Your task to perform on an android device: install app "Venmo" Image 0: 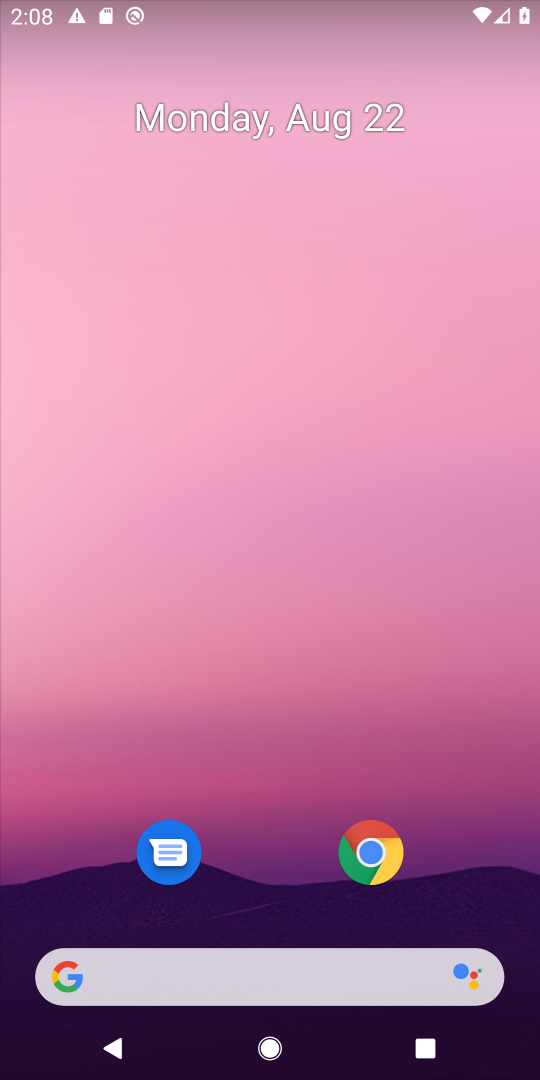
Step 0: drag from (274, 414) to (271, 114)
Your task to perform on an android device: install app "Venmo" Image 1: 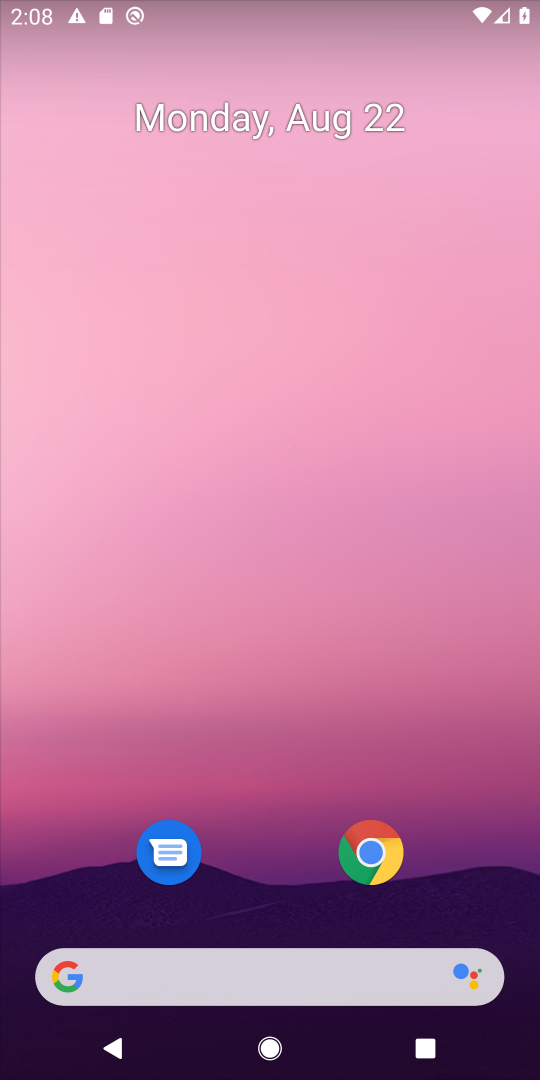
Step 1: drag from (280, 918) to (310, 63)
Your task to perform on an android device: install app "Venmo" Image 2: 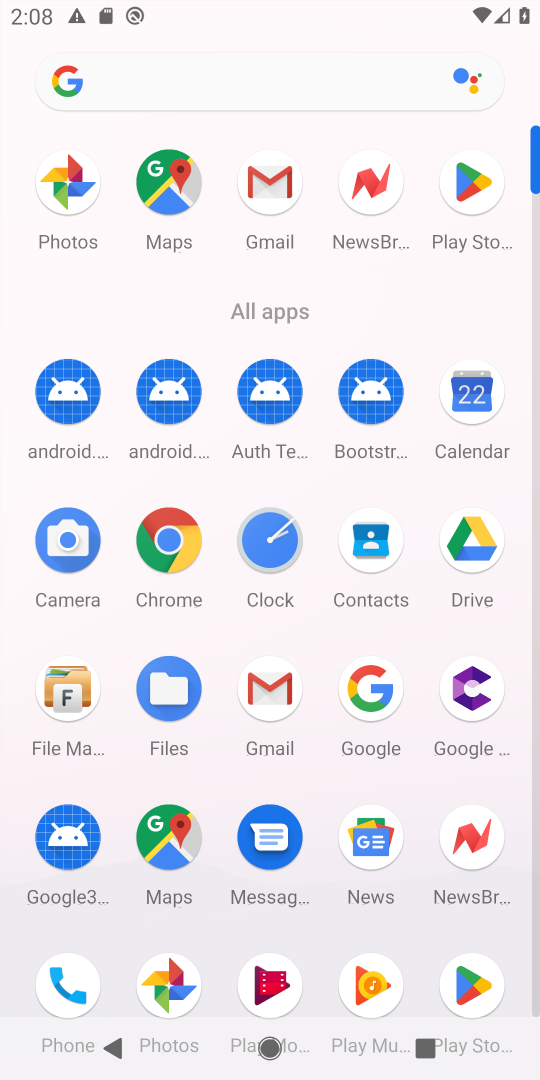
Step 2: click (462, 179)
Your task to perform on an android device: install app "Venmo" Image 3: 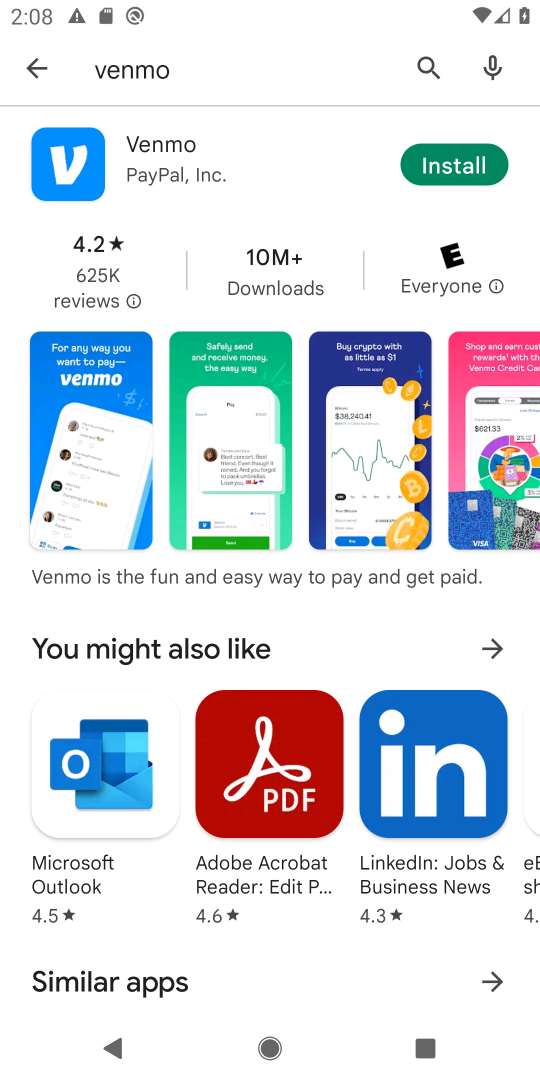
Step 3: click (453, 168)
Your task to perform on an android device: install app "Venmo" Image 4: 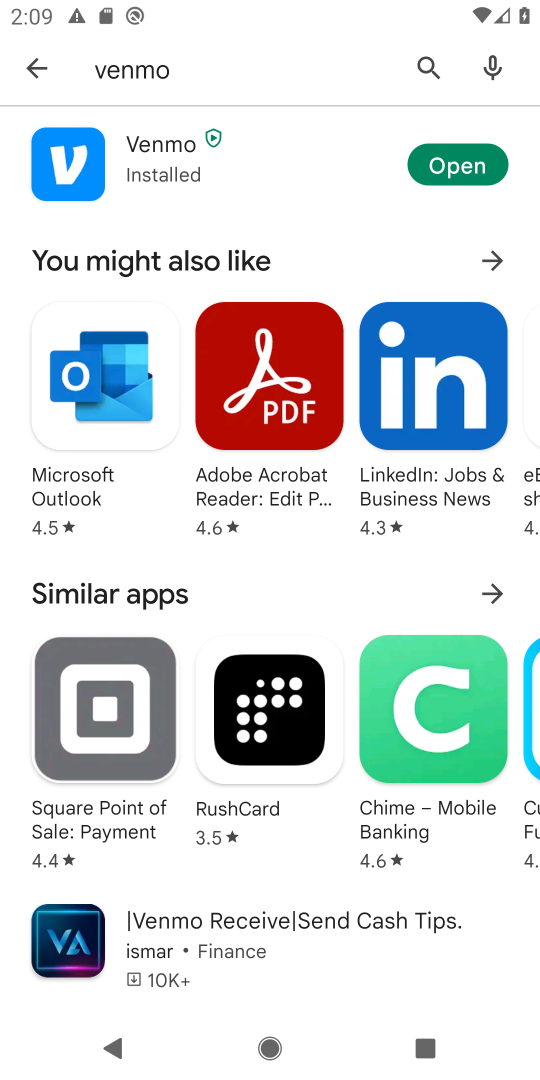
Step 4: task complete